Your task to perform on an android device: read, delete, or share a saved page in the chrome app Image 0: 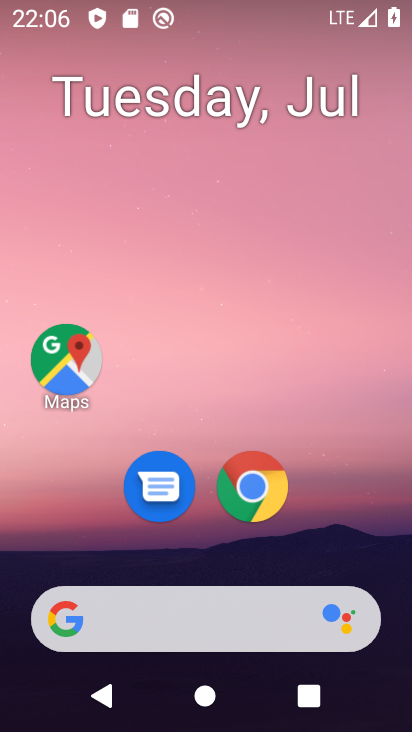
Step 0: press home button
Your task to perform on an android device: read, delete, or share a saved page in the chrome app Image 1: 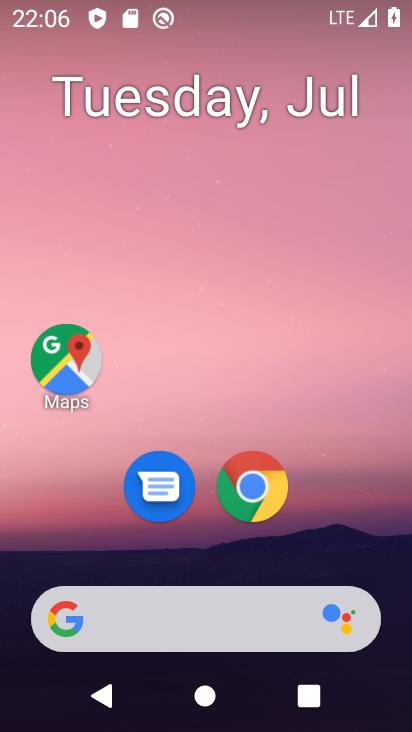
Step 1: drag from (362, 563) to (376, 141)
Your task to perform on an android device: read, delete, or share a saved page in the chrome app Image 2: 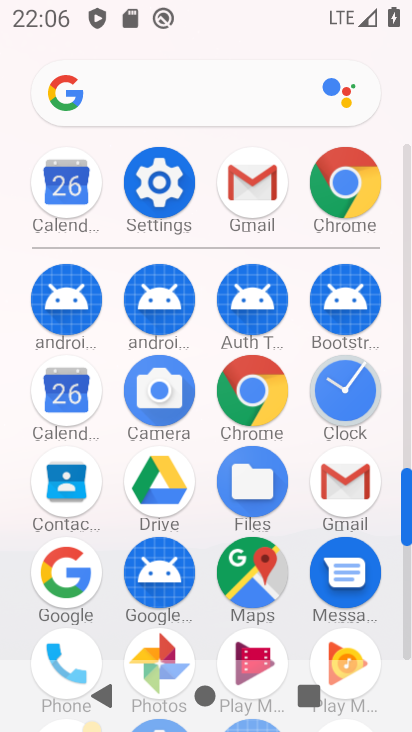
Step 2: click (251, 385)
Your task to perform on an android device: read, delete, or share a saved page in the chrome app Image 3: 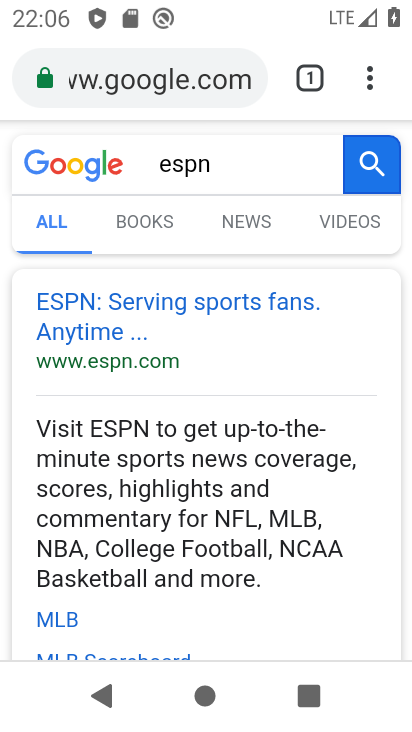
Step 3: click (366, 81)
Your task to perform on an android device: read, delete, or share a saved page in the chrome app Image 4: 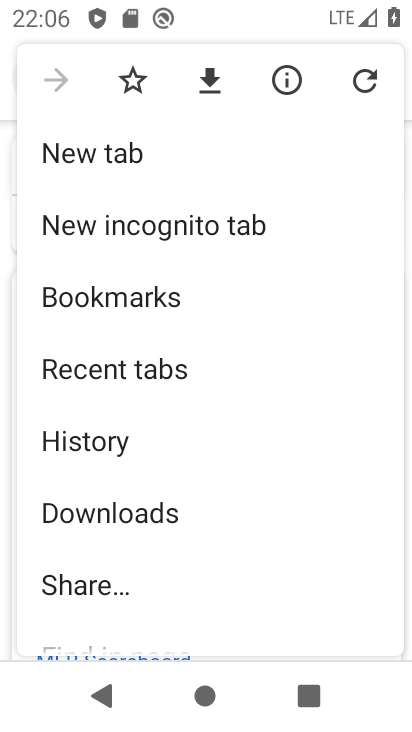
Step 4: click (152, 512)
Your task to perform on an android device: read, delete, or share a saved page in the chrome app Image 5: 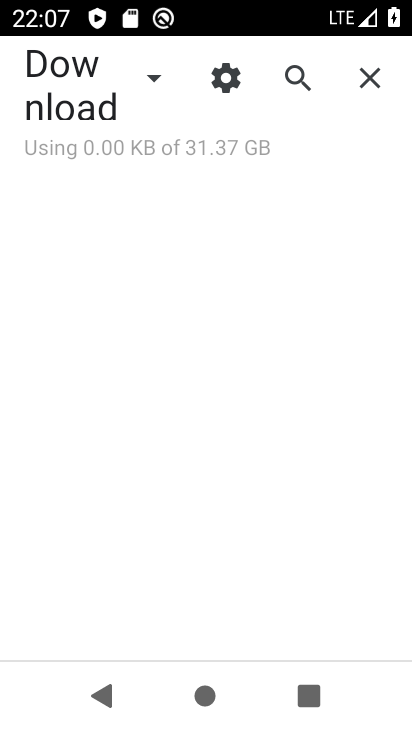
Step 5: click (150, 78)
Your task to perform on an android device: read, delete, or share a saved page in the chrome app Image 6: 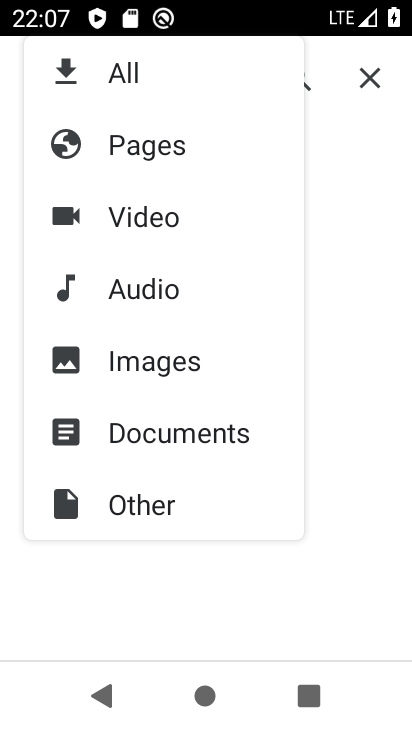
Step 6: click (142, 153)
Your task to perform on an android device: read, delete, or share a saved page in the chrome app Image 7: 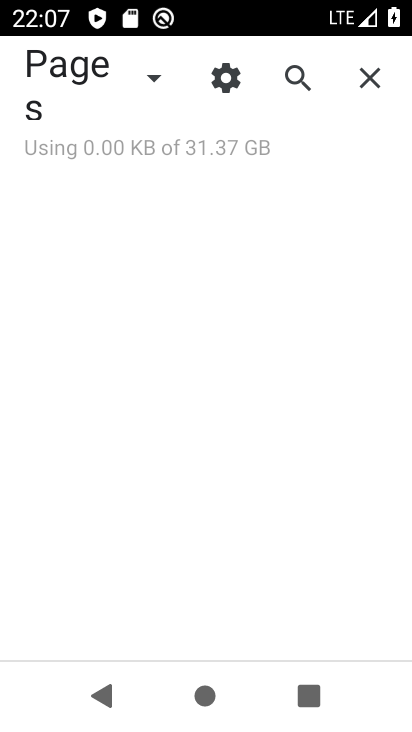
Step 7: task complete